Your task to perform on an android device: turn on improve location accuracy Image 0: 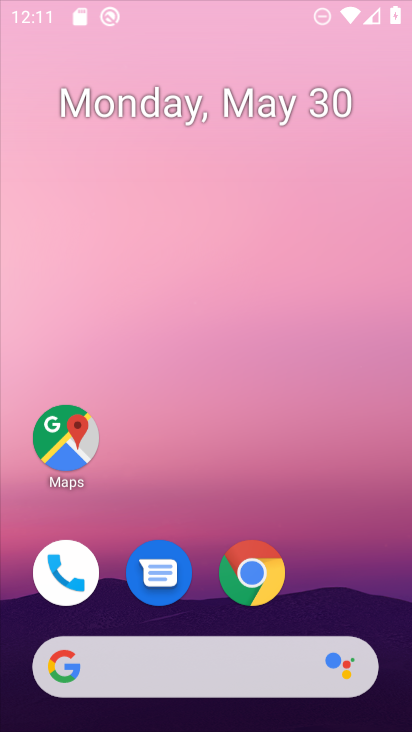
Step 0: press home button
Your task to perform on an android device: turn on improve location accuracy Image 1: 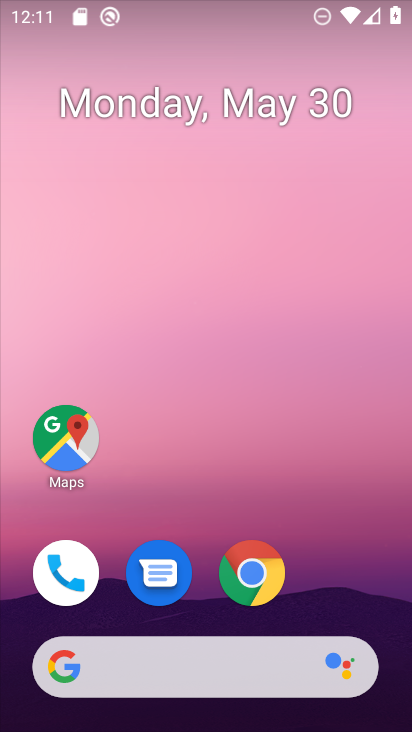
Step 1: drag from (334, 625) to (305, 269)
Your task to perform on an android device: turn on improve location accuracy Image 2: 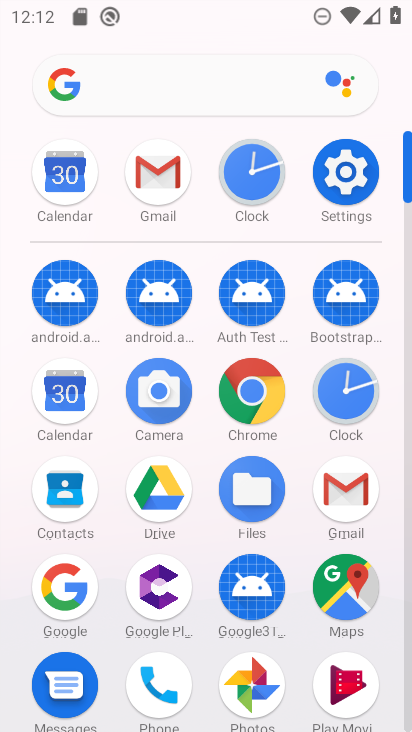
Step 2: click (337, 178)
Your task to perform on an android device: turn on improve location accuracy Image 3: 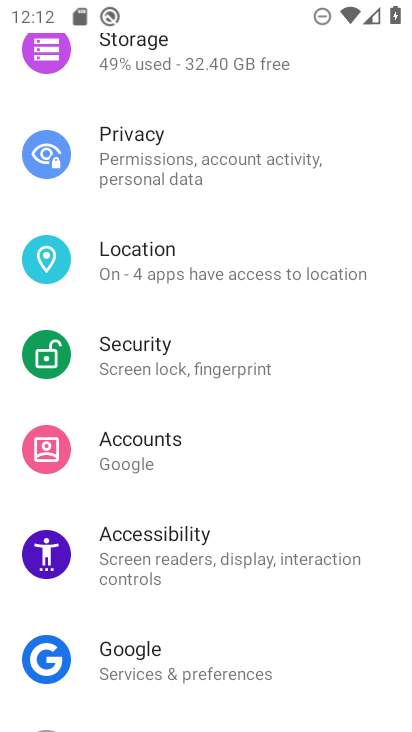
Step 3: click (148, 257)
Your task to perform on an android device: turn on improve location accuracy Image 4: 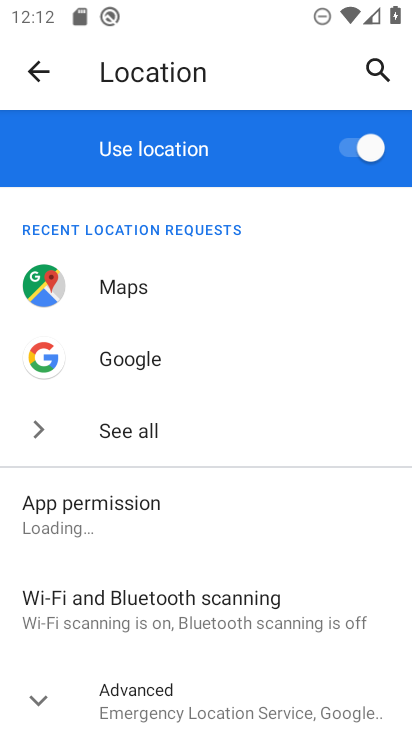
Step 4: click (135, 703)
Your task to perform on an android device: turn on improve location accuracy Image 5: 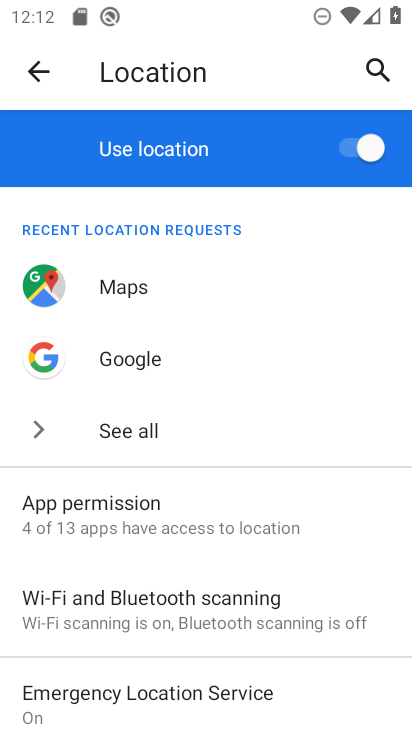
Step 5: drag from (349, 665) to (304, 268)
Your task to perform on an android device: turn on improve location accuracy Image 6: 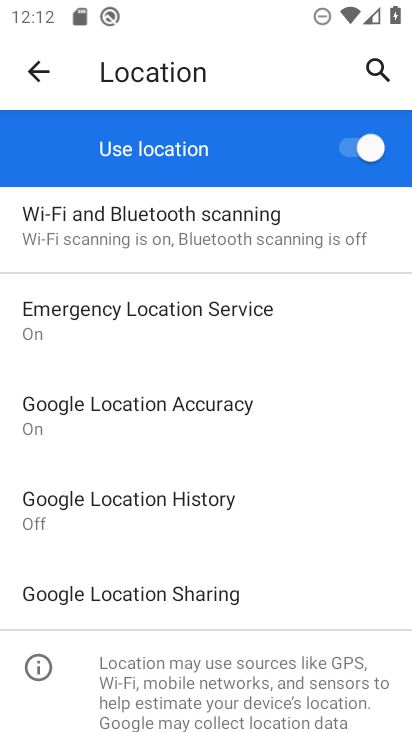
Step 6: click (157, 410)
Your task to perform on an android device: turn on improve location accuracy Image 7: 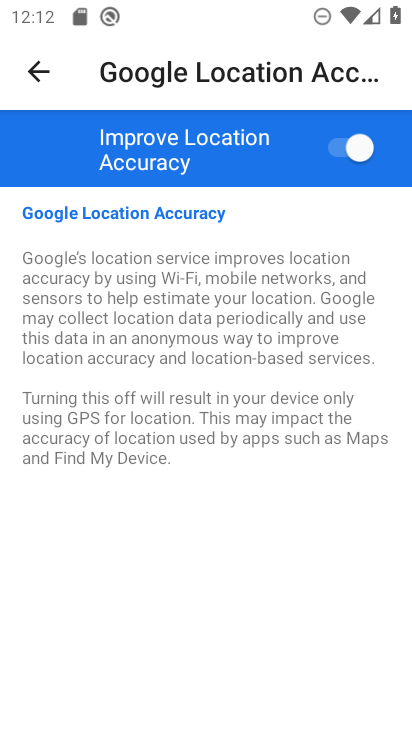
Step 7: task complete